Your task to perform on an android device: What is the recent news? Image 0: 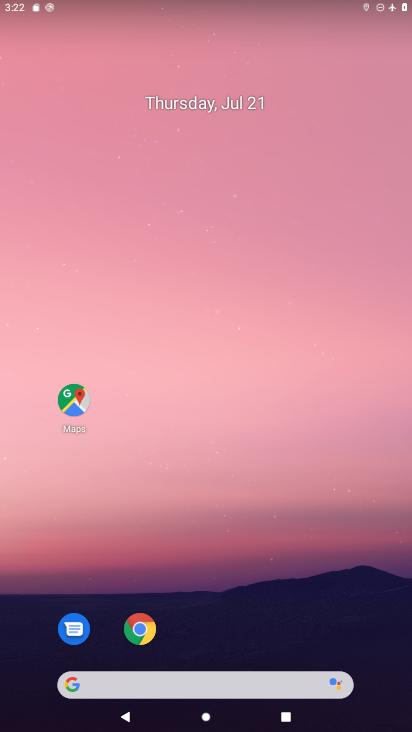
Step 0: drag from (232, 634) to (215, 593)
Your task to perform on an android device: What is the recent news? Image 1: 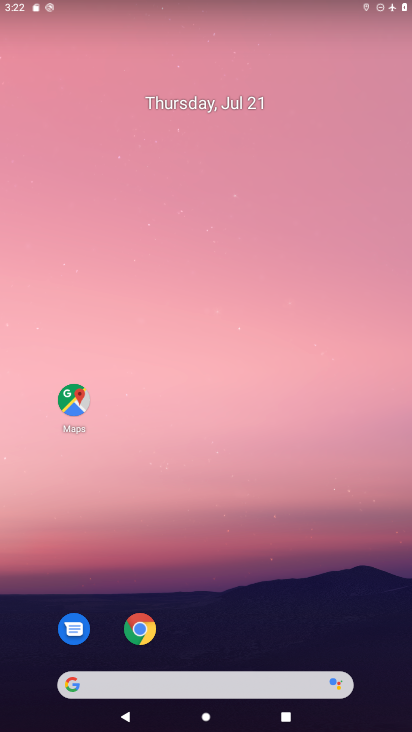
Step 1: click (211, 692)
Your task to perform on an android device: What is the recent news? Image 2: 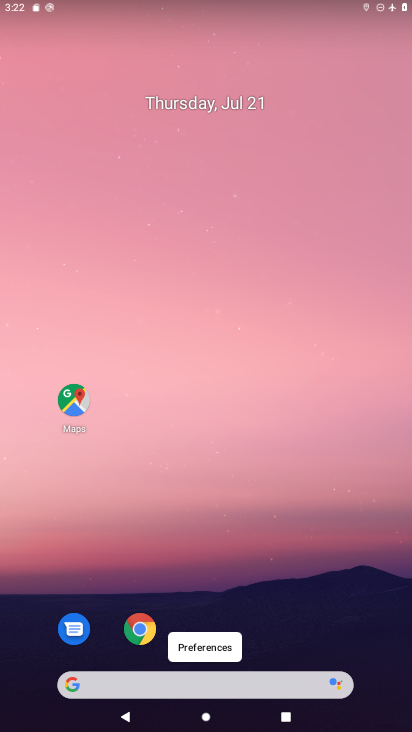
Step 2: click (206, 687)
Your task to perform on an android device: What is the recent news? Image 3: 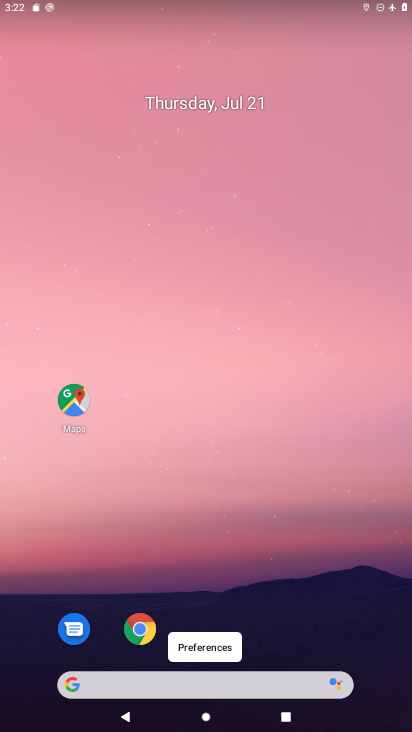
Step 3: click (206, 687)
Your task to perform on an android device: What is the recent news? Image 4: 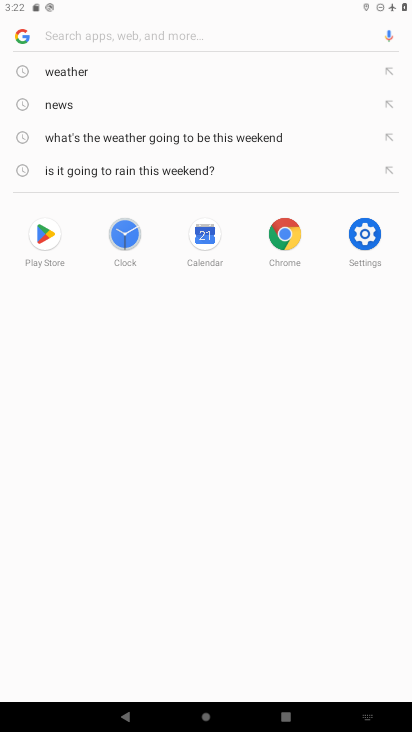
Step 4: type "recent news"
Your task to perform on an android device: What is the recent news? Image 5: 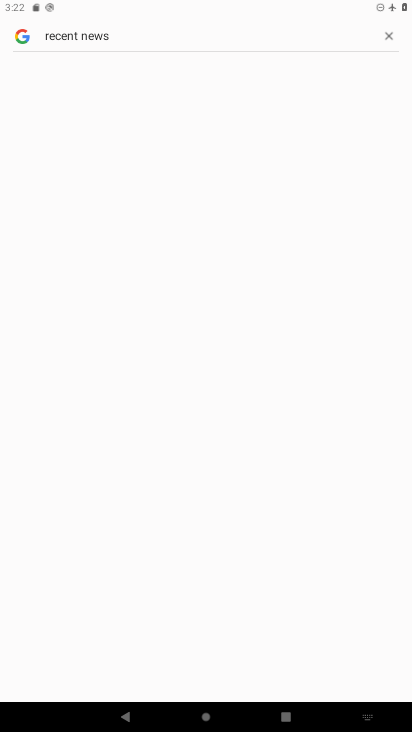
Step 5: task complete